Your task to perform on an android device: Add acer nitro to the cart on ebay, then select checkout. Image 0: 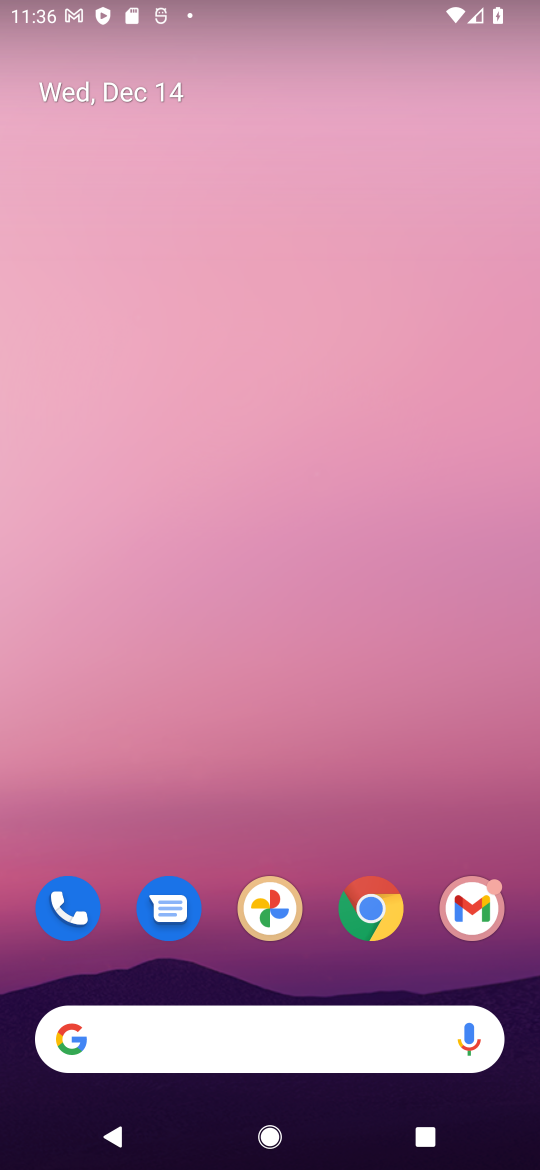
Step 0: click (377, 914)
Your task to perform on an android device: Add acer nitro to the cart on ebay, then select checkout. Image 1: 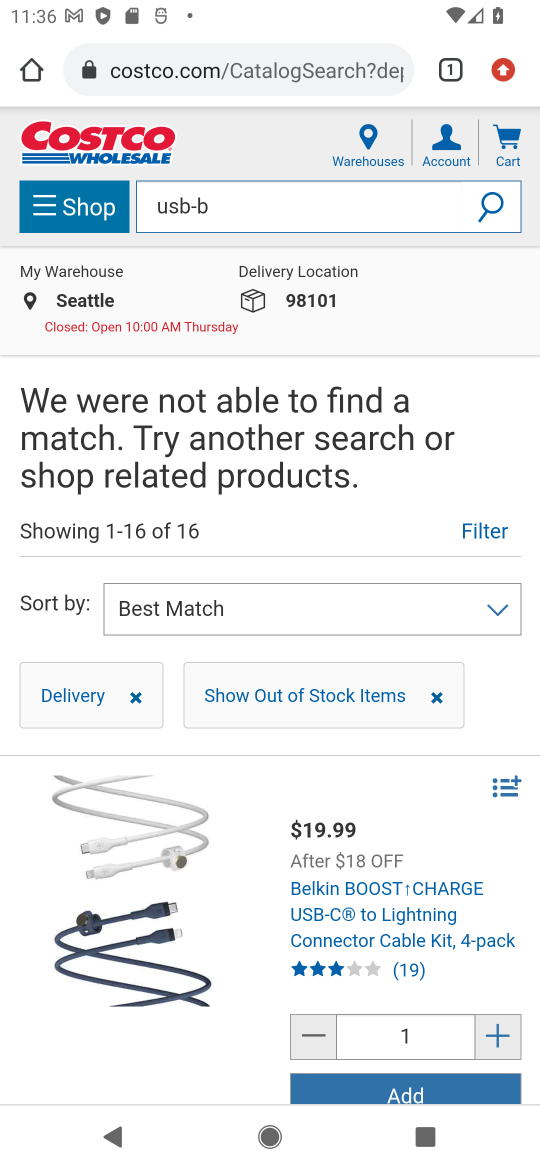
Step 1: click (203, 78)
Your task to perform on an android device: Add acer nitro to the cart on ebay, then select checkout. Image 2: 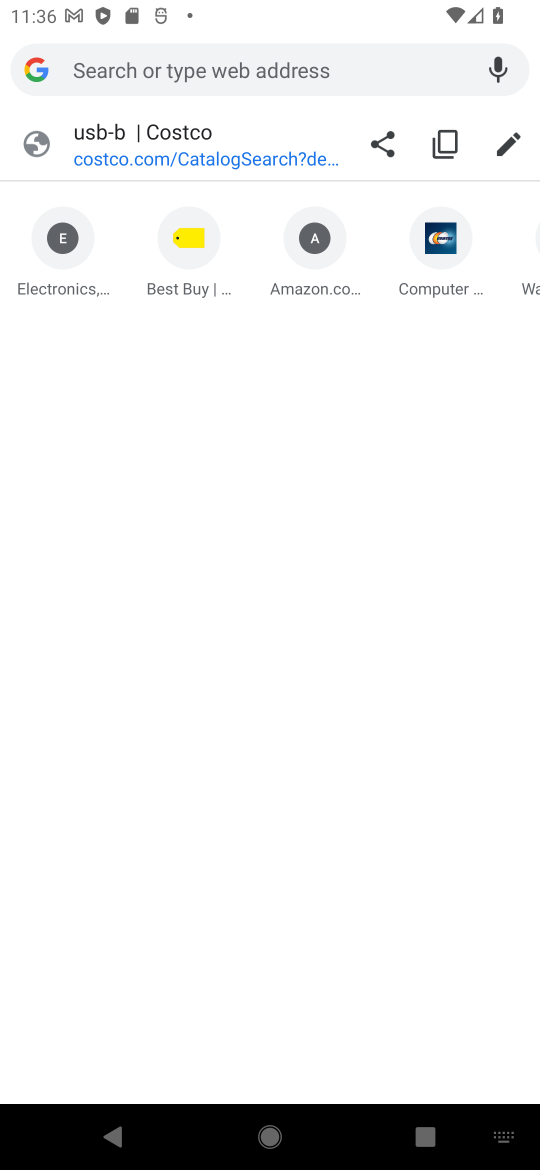
Step 2: type "ebay.com"
Your task to perform on an android device: Add acer nitro to the cart on ebay, then select checkout. Image 3: 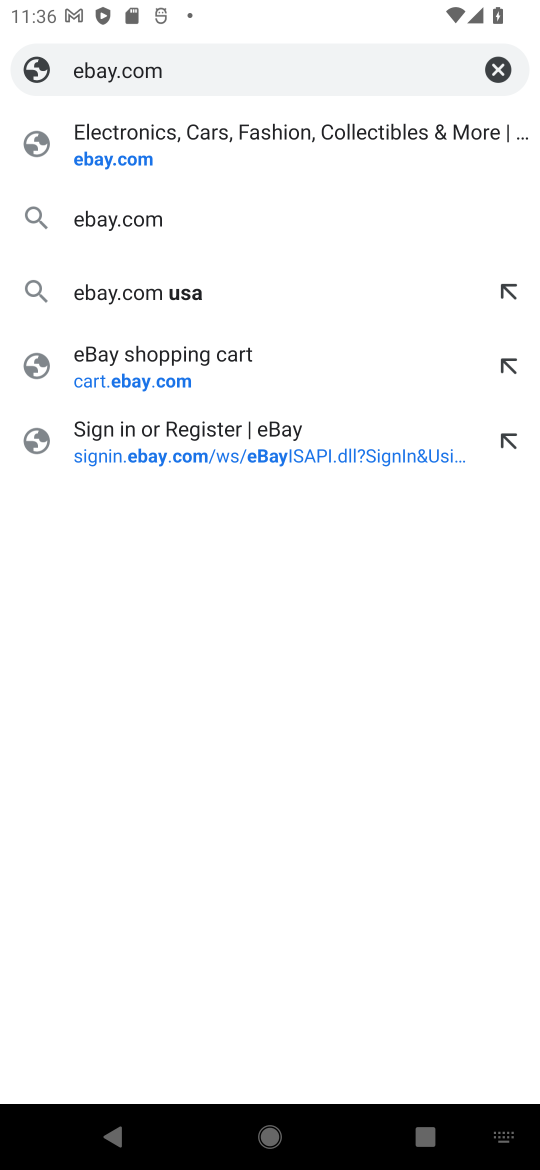
Step 3: click (134, 166)
Your task to perform on an android device: Add acer nitro to the cart on ebay, then select checkout. Image 4: 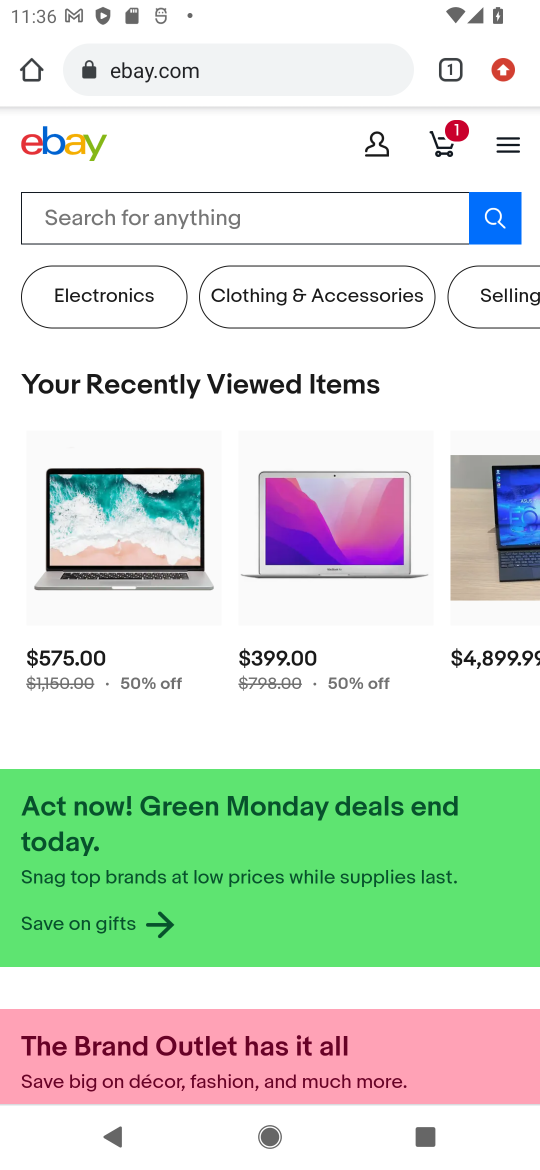
Step 4: click (71, 219)
Your task to perform on an android device: Add acer nitro to the cart on ebay, then select checkout. Image 5: 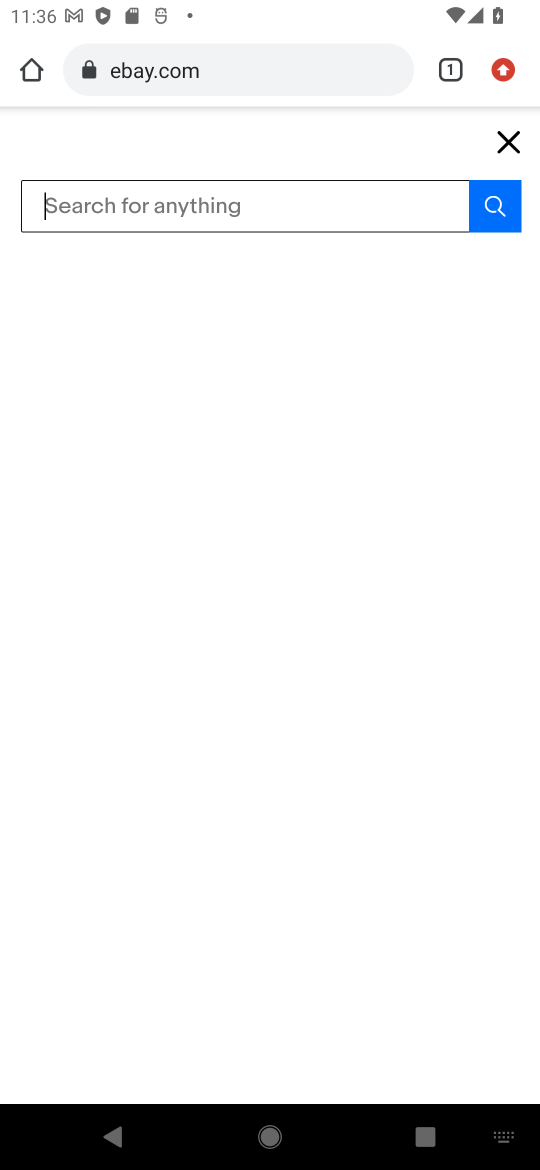
Step 5: type "acer nitro"
Your task to perform on an android device: Add acer nitro to the cart on ebay, then select checkout. Image 6: 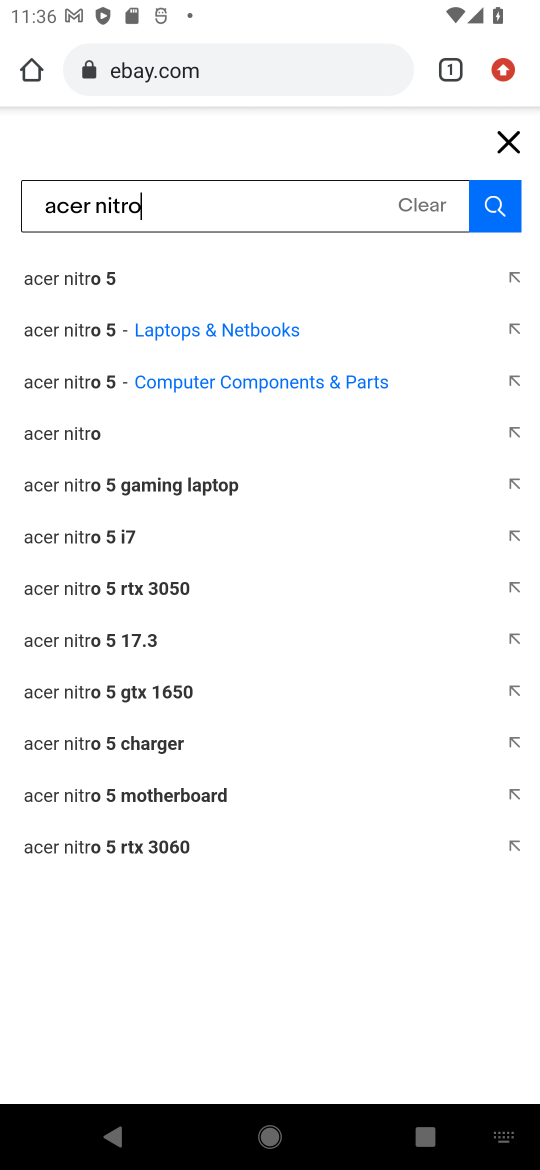
Step 6: click (86, 436)
Your task to perform on an android device: Add acer nitro to the cart on ebay, then select checkout. Image 7: 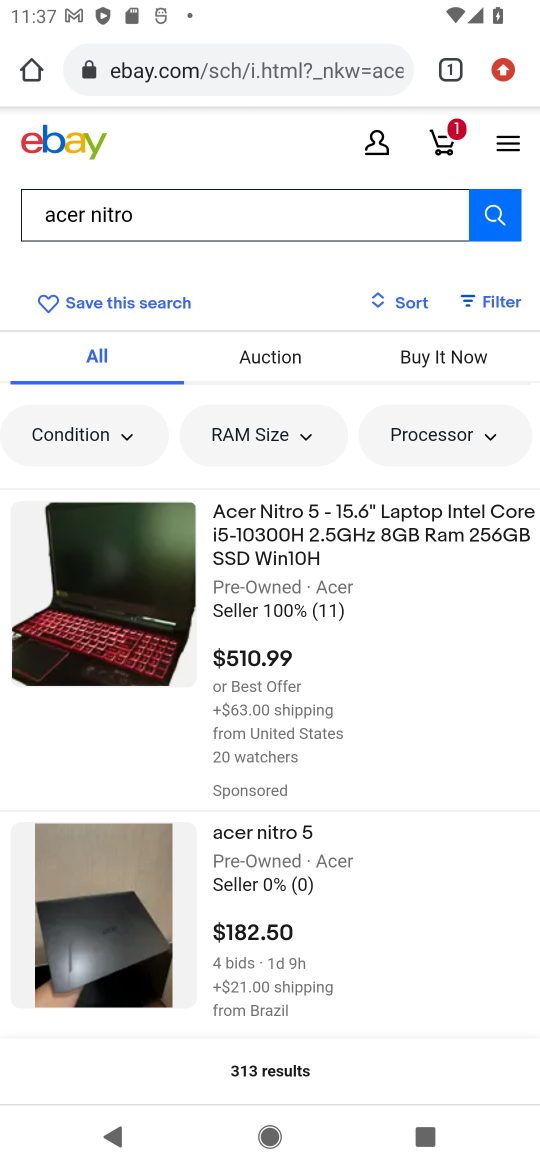
Step 7: click (260, 529)
Your task to perform on an android device: Add acer nitro to the cart on ebay, then select checkout. Image 8: 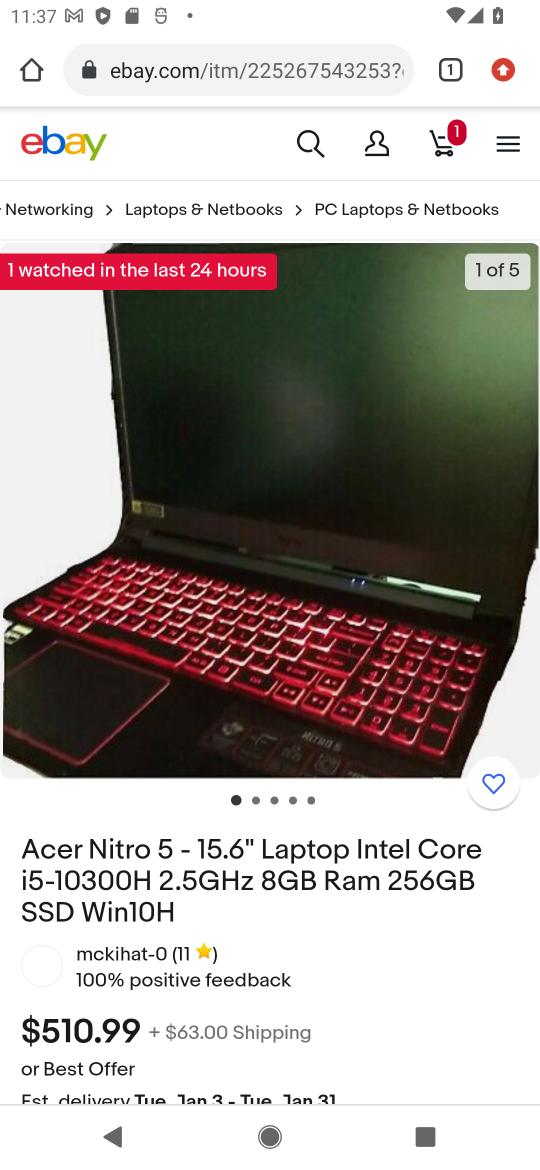
Step 8: drag from (210, 814) to (220, 334)
Your task to perform on an android device: Add acer nitro to the cart on ebay, then select checkout. Image 9: 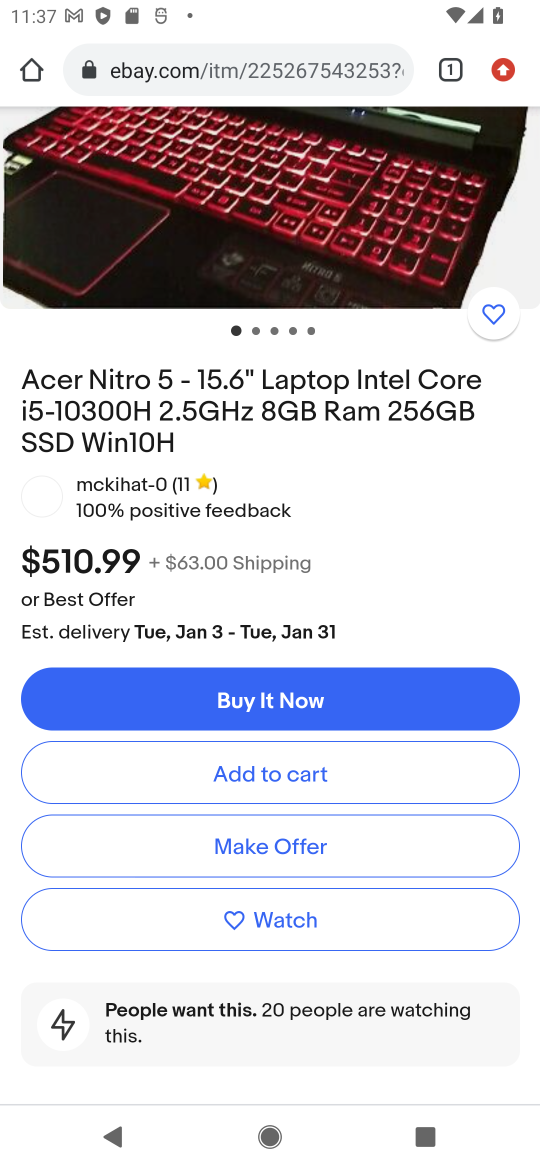
Step 9: click (220, 773)
Your task to perform on an android device: Add acer nitro to the cart on ebay, then select checkout. Image 10: 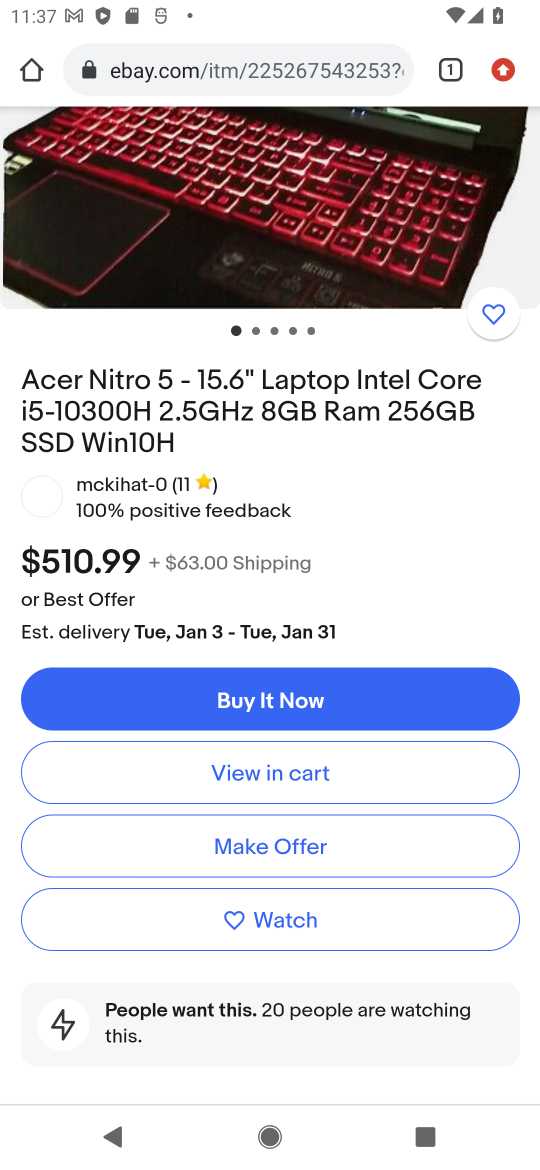
Step 10: click (220, 773)
Your task to perform on an android device: Add acer nitro to the cart on ebay, then select checkout. Image 11: 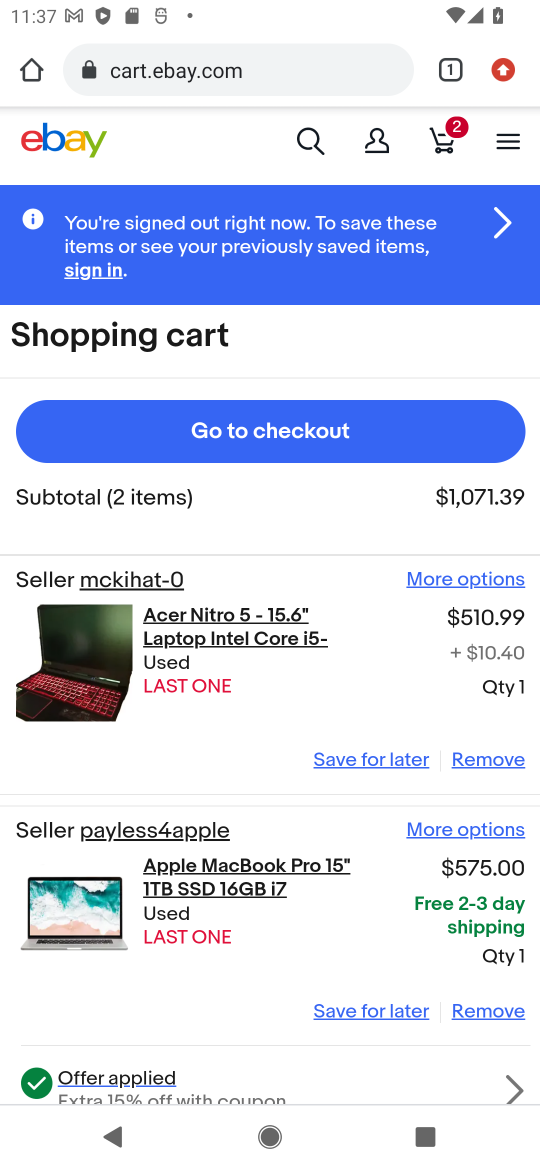
Step 11: click (226, 427)
Your task to perform on an android device: Add acer nitro to the cart on ebay, then select checkout. Image 12: 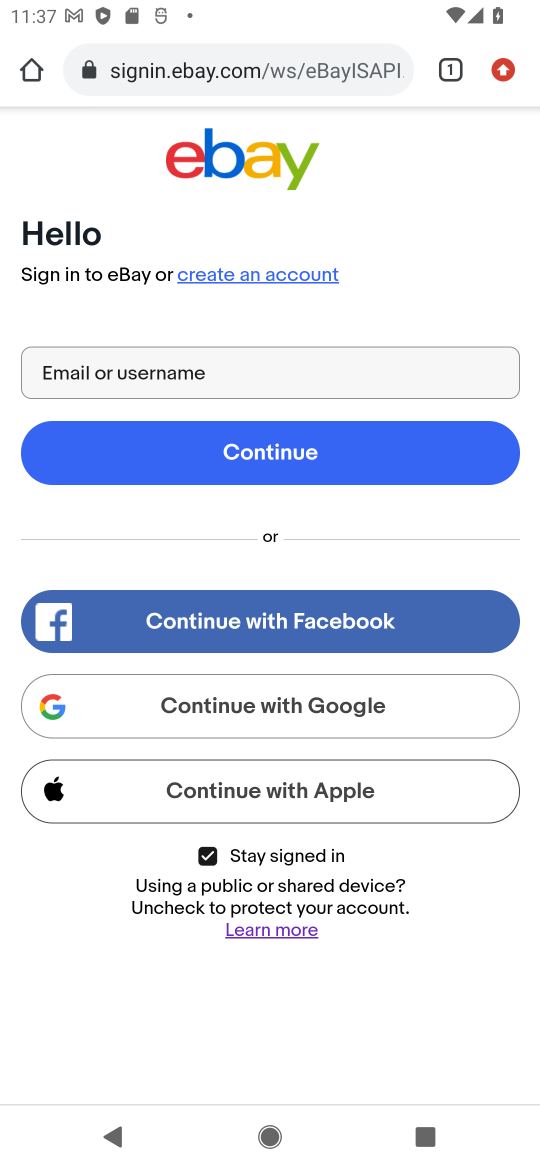
Step 12: task complete